Your task to perform on an android device: Go to Reddit.com Image 0: 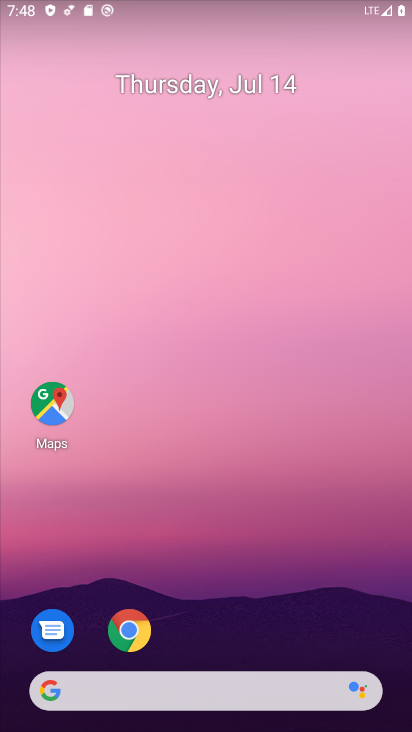
Step 0: drag from (242, 637) to (246, 323)
Your task to perform on an android device: Go to Reddit.com Image 1: 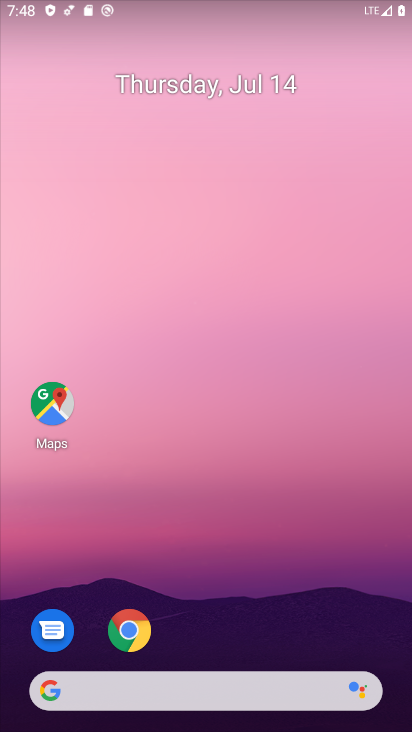
Step 1: drag from (240, 627) to (290, 266)
Your task to perform on an android device: Go to Reddit.com Image 2: 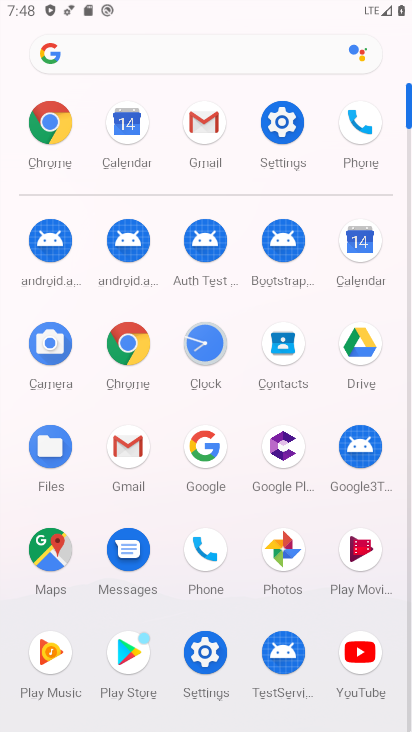
Step 2: click (34, 114)
Your task to perform on an android device: Go to Reddit.com Image 3: 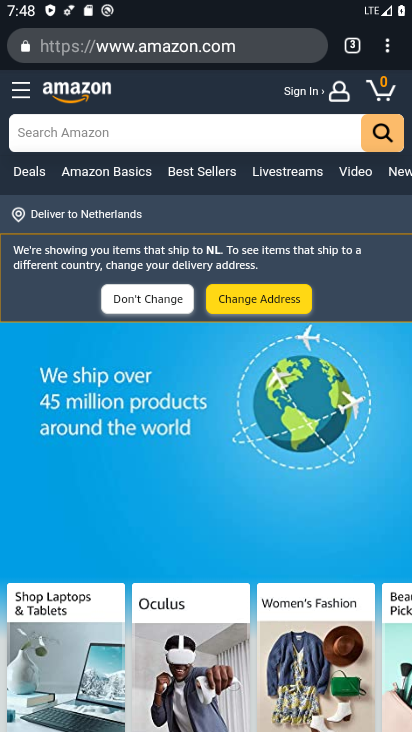
Step 3: click (386, 40)
Your task to perform on an android device: Go to Reddit.com Image 4: 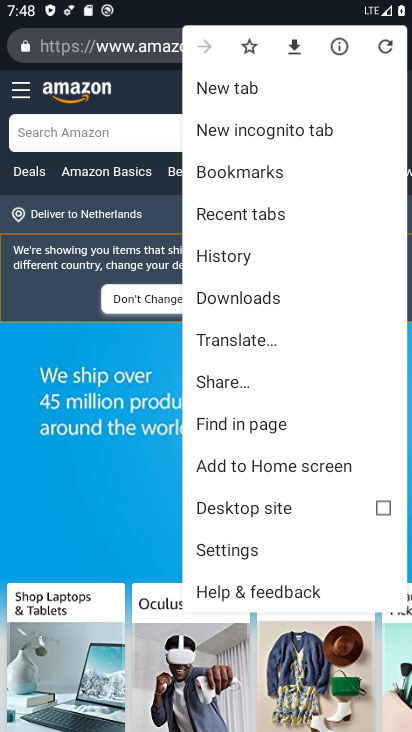
Step 4: click (242, 80)
Your task to perform on an android device: Go to Reddit.com Image 5: 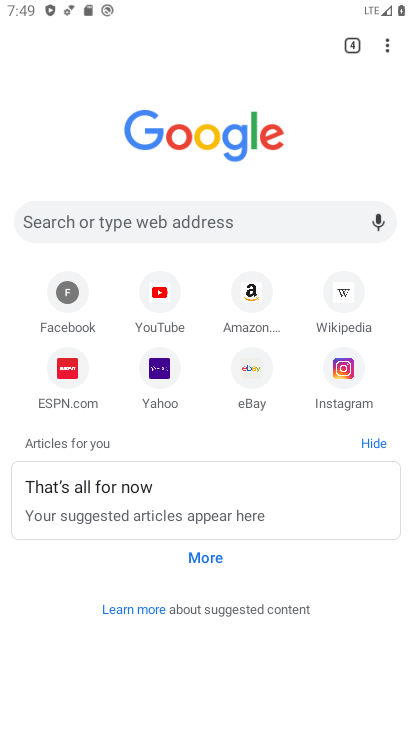
Step 5: click (237, 209)
Your task to perform on an android device: Go to Reddit.com Image 6: 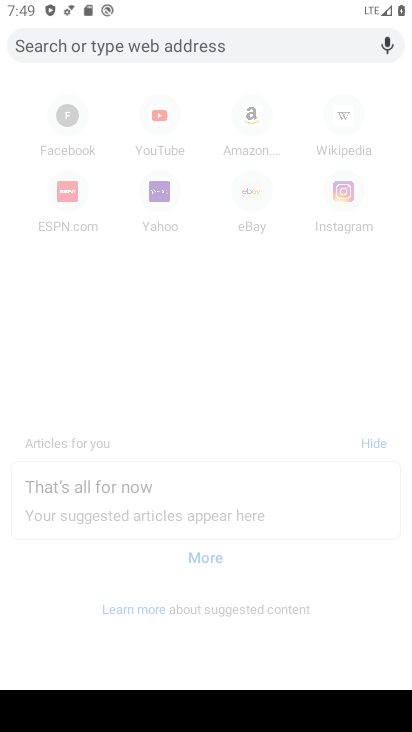
Step 6: type " Reddit.com "
Your task to perform on an android device: Go to Reddit.com Image 7: 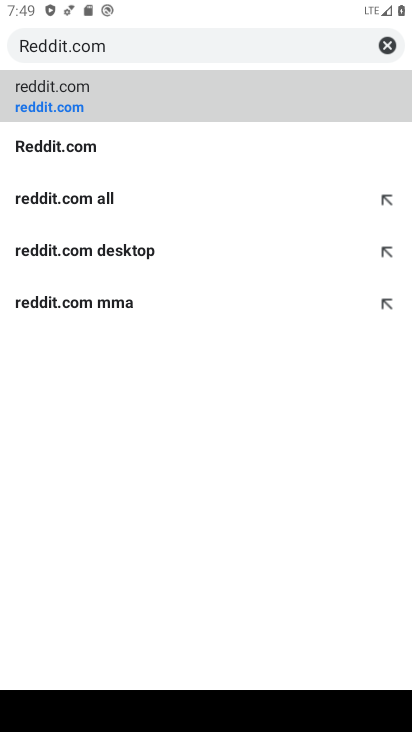
Step 7: click (128, 92)
Your task to perform on an android device: Go to Reddit.com Image 8: 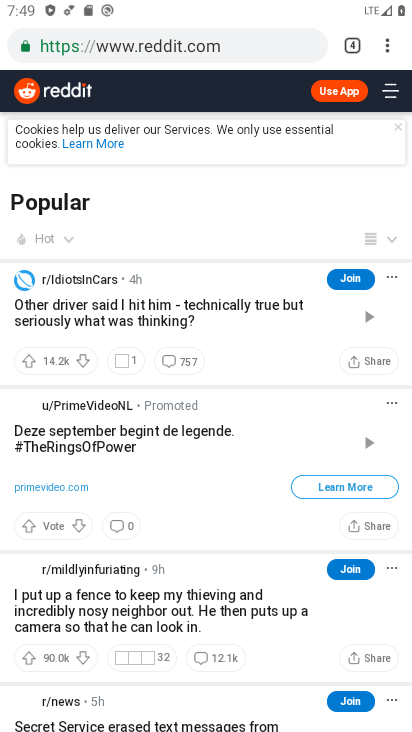
Step 8: task complete